Your task to perform on an android device: open app "Duolingo: language lessons" (install if not already installed), go to login, and select forgot password Image 0: 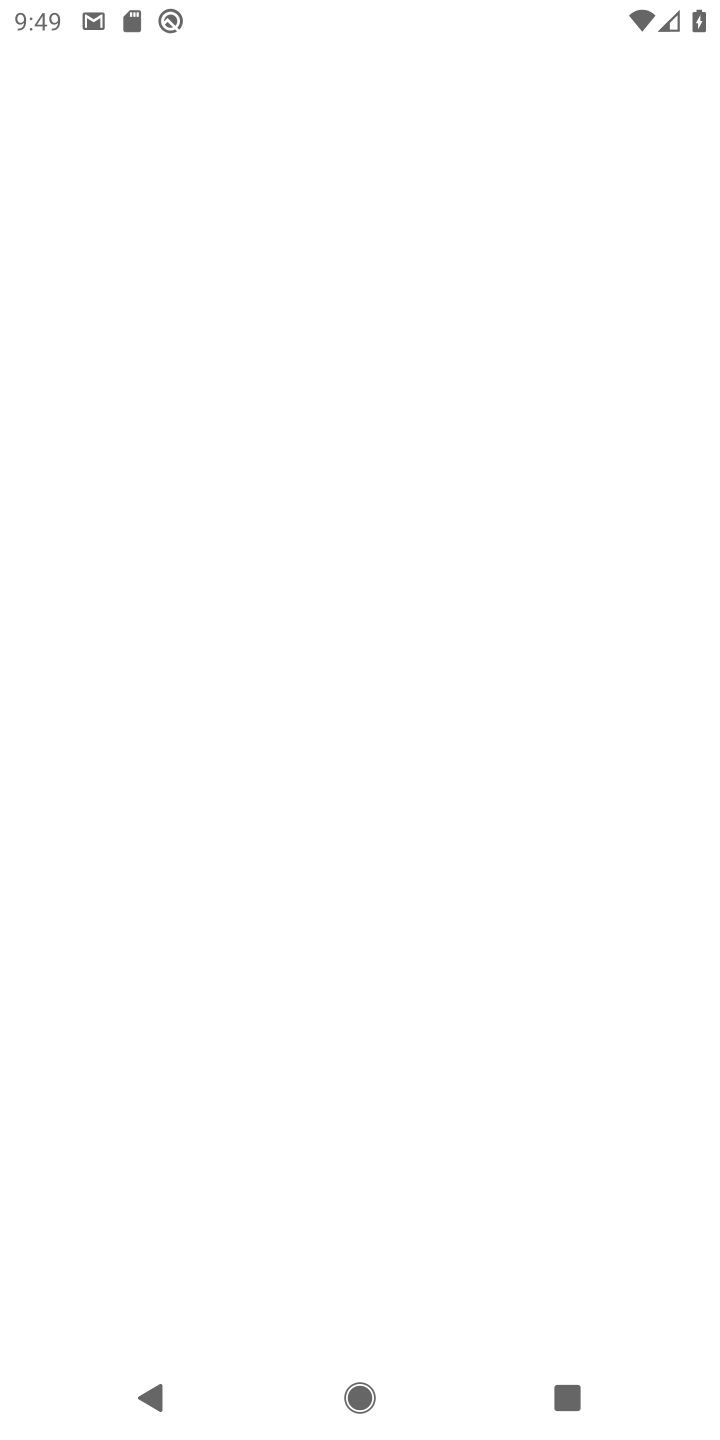
Step 0: press home button
Your task to perform on an android device: open app "Duolingo: language lessons" (install if not already installed), go to login, and select forgot password Image 1: 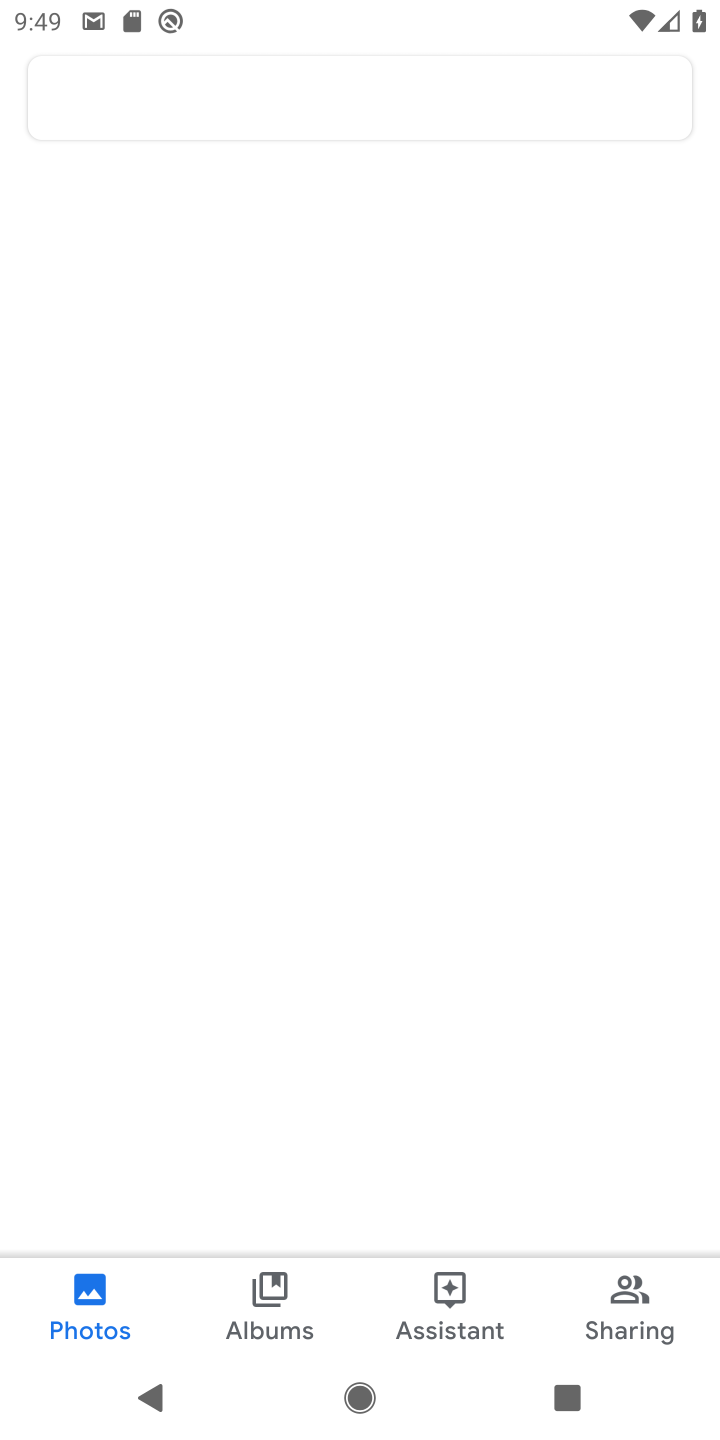
Step 1: press home button
Your task to perform on an android device: open app "Duolingo: language lessons" (install if not already installed), go to login, and select forgot password Image 2: 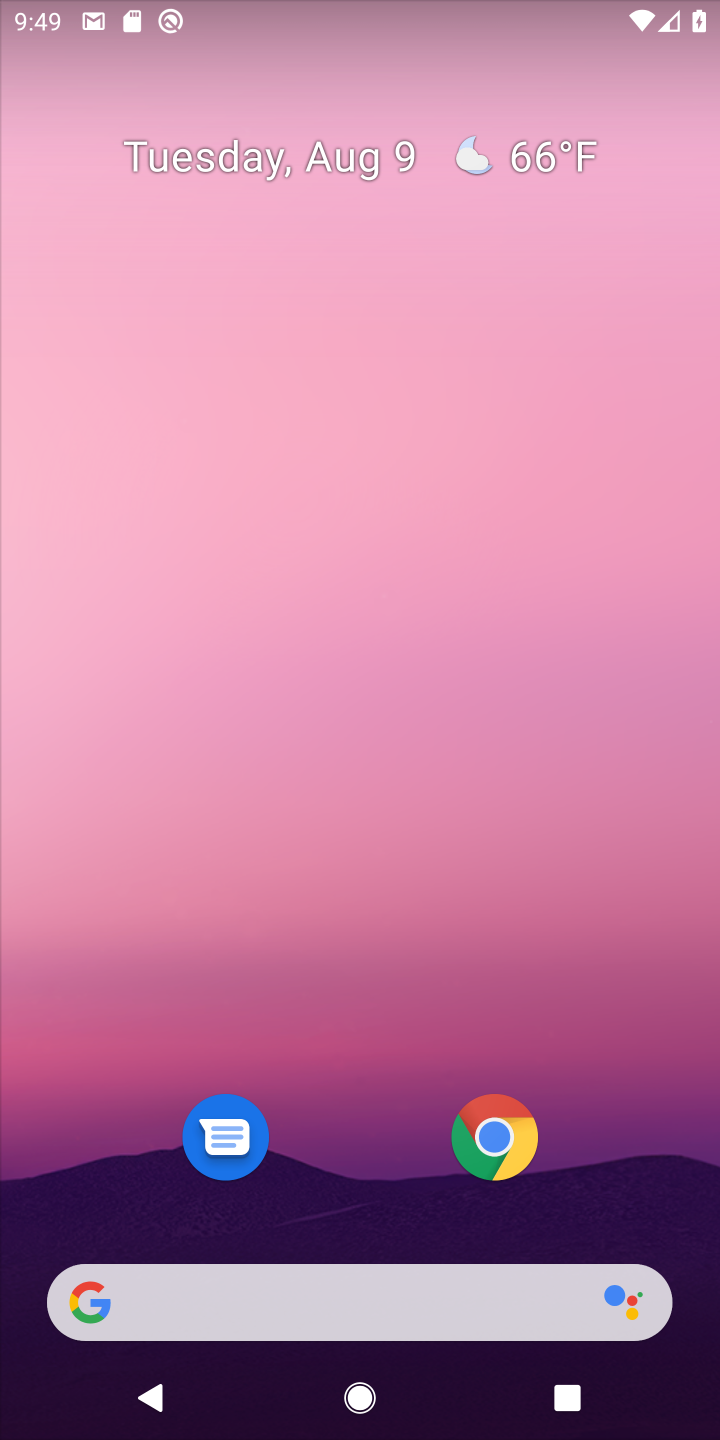
Step 2: drag from (336, 1136) to (335, 393)
Your task to perform on an android device: open app "Duolingo: language lessons" (install if not already installed), go to login, and select forgot password Image 3: 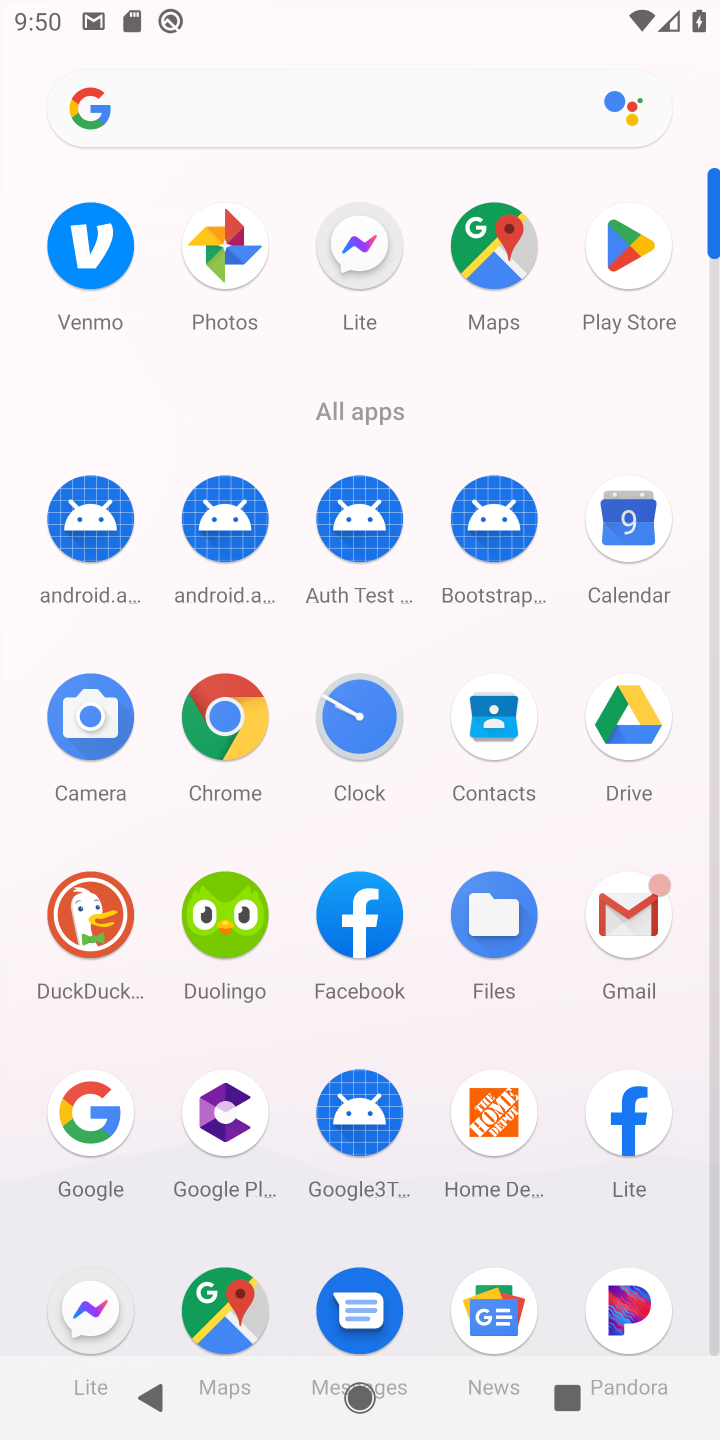
Step 3: click (640, 246)
Your task to perform on an android device: open app "Duolingo: language lessons" (install if not already installed), go to login, and select forgot password Image 4: 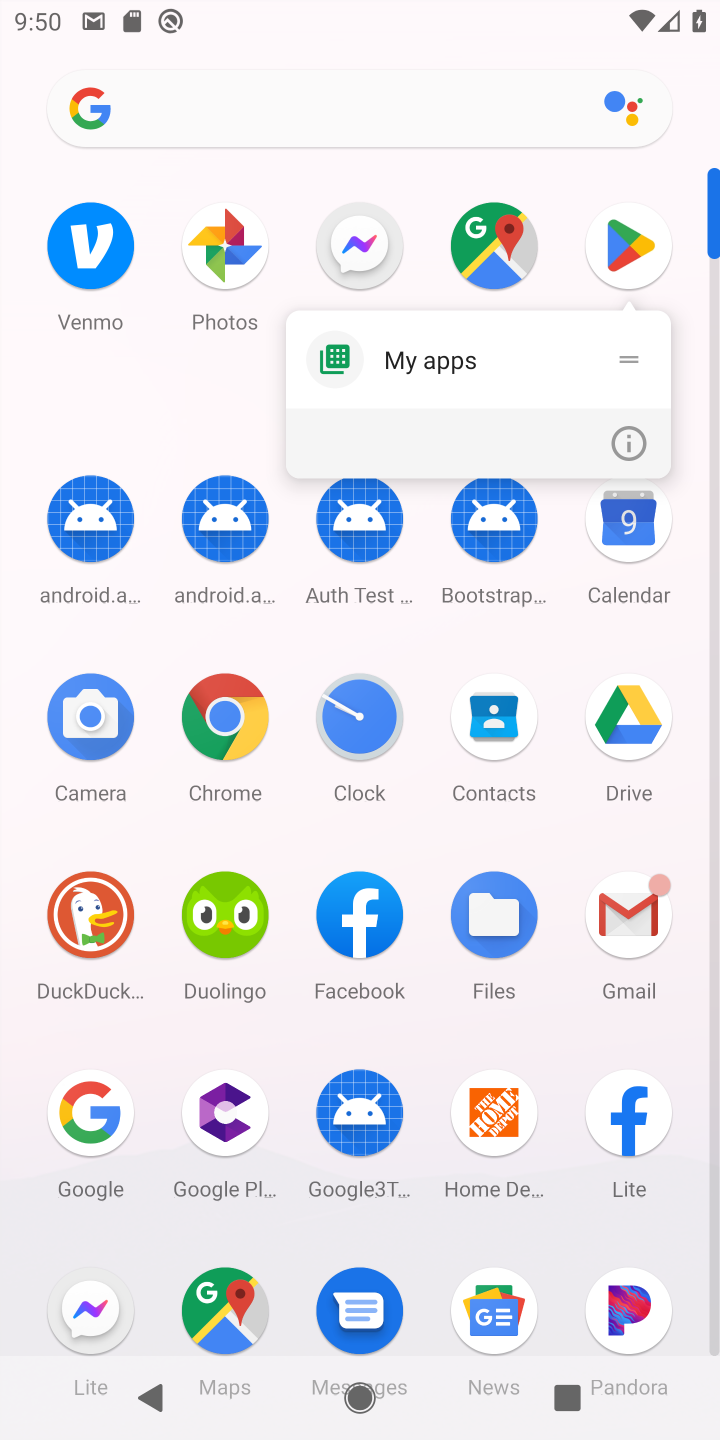
Step 4: click (627, 237)
Your task to perform on an android device: open app "Duolingo: language lessons" (install if not already installed), go to login, and select forgot password Image 5: 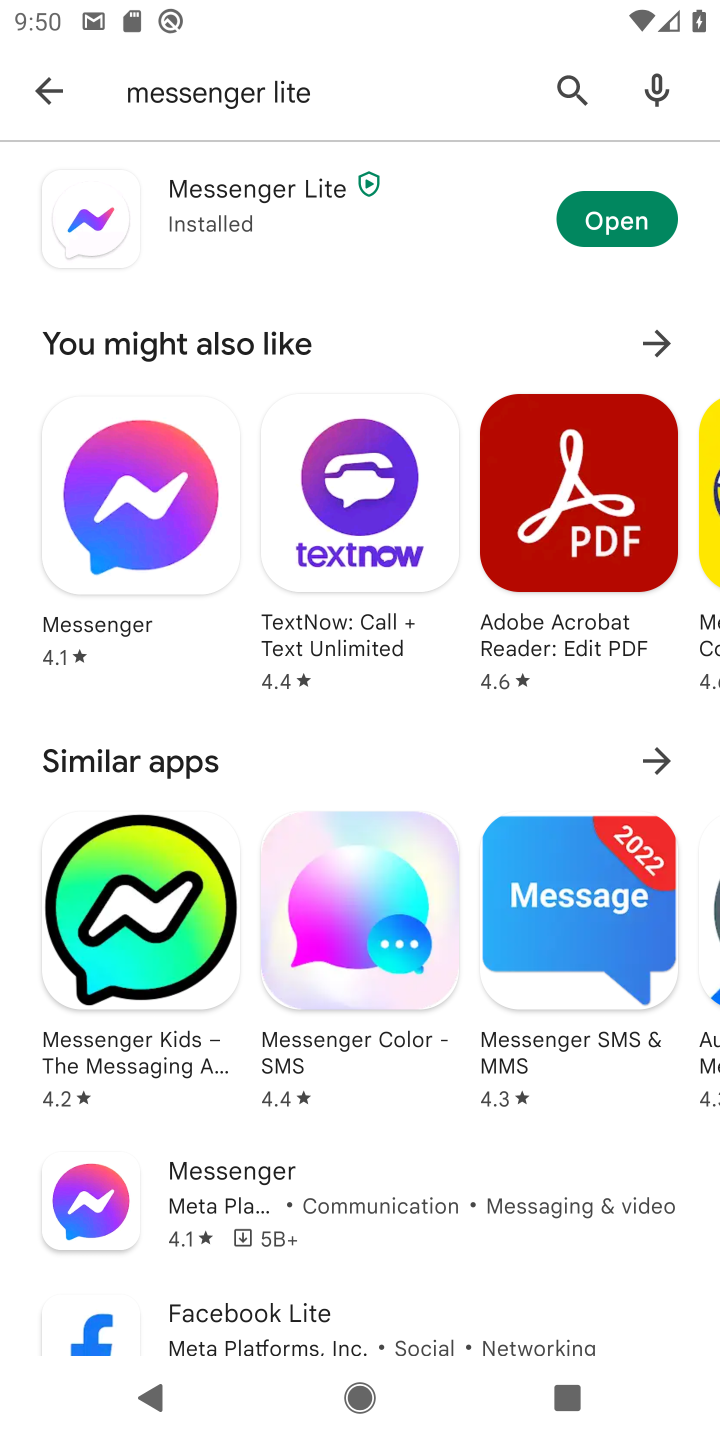
Step 5: click (565, 73)
Your task to perform on an android device: open app "Duolingo: language lessons" (install if not already installed), go to login, and select forgot password Image 6: 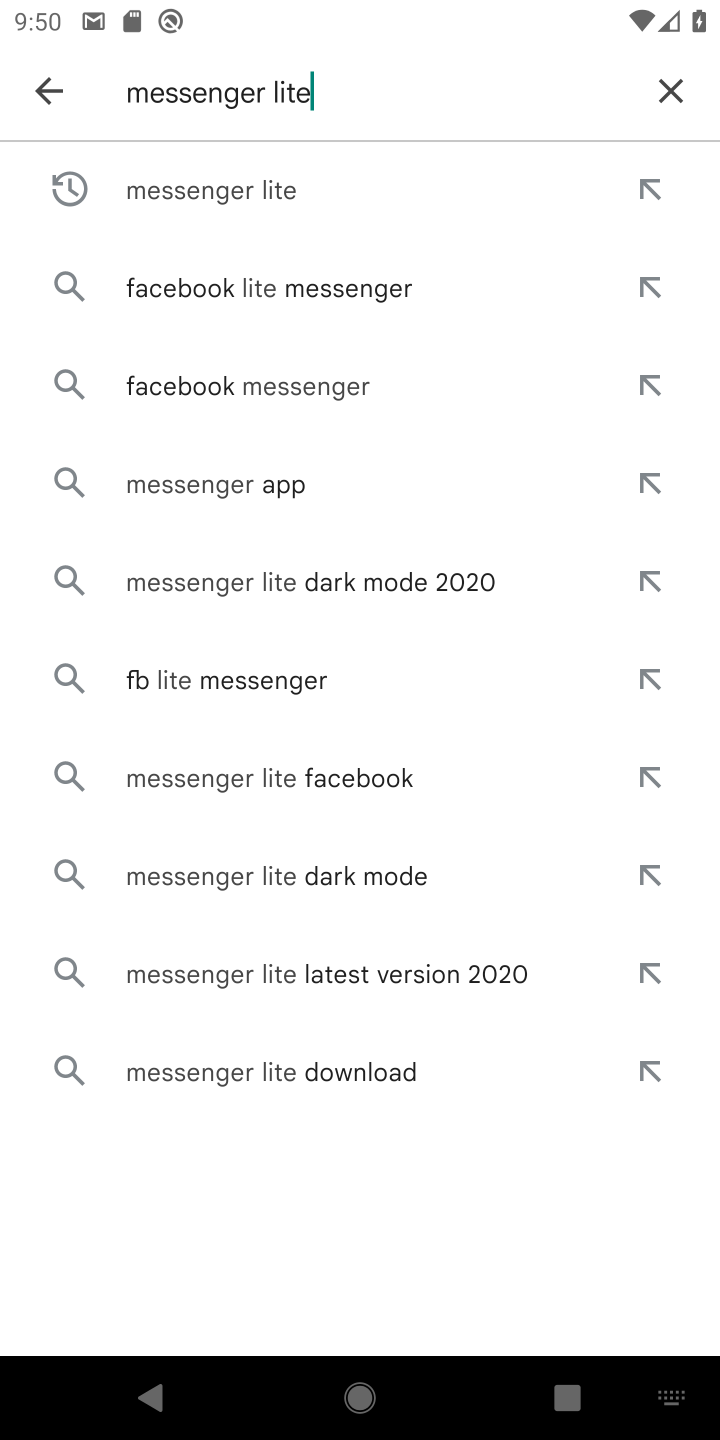
Step 6: click (659, 84)
Your task to perform on an android device: open app "Duolingo: language lessons" (install if not already installed), go to login, and select forgot password Image 7: 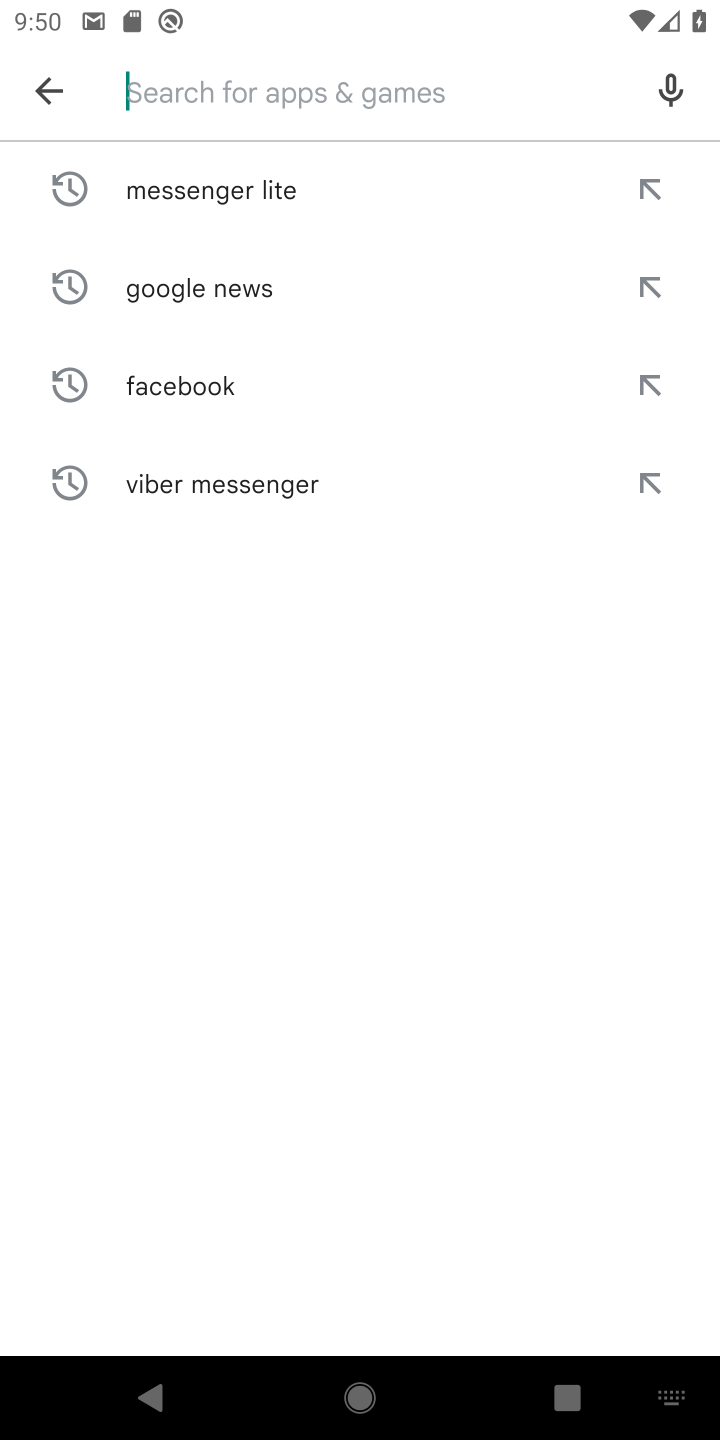
Step 7: type "Duolingo: language lessons"
Your task to perform on an android device: open app "Duolingo: language lessons" (install if not already installed), go to login, and select forgot password Image 8: 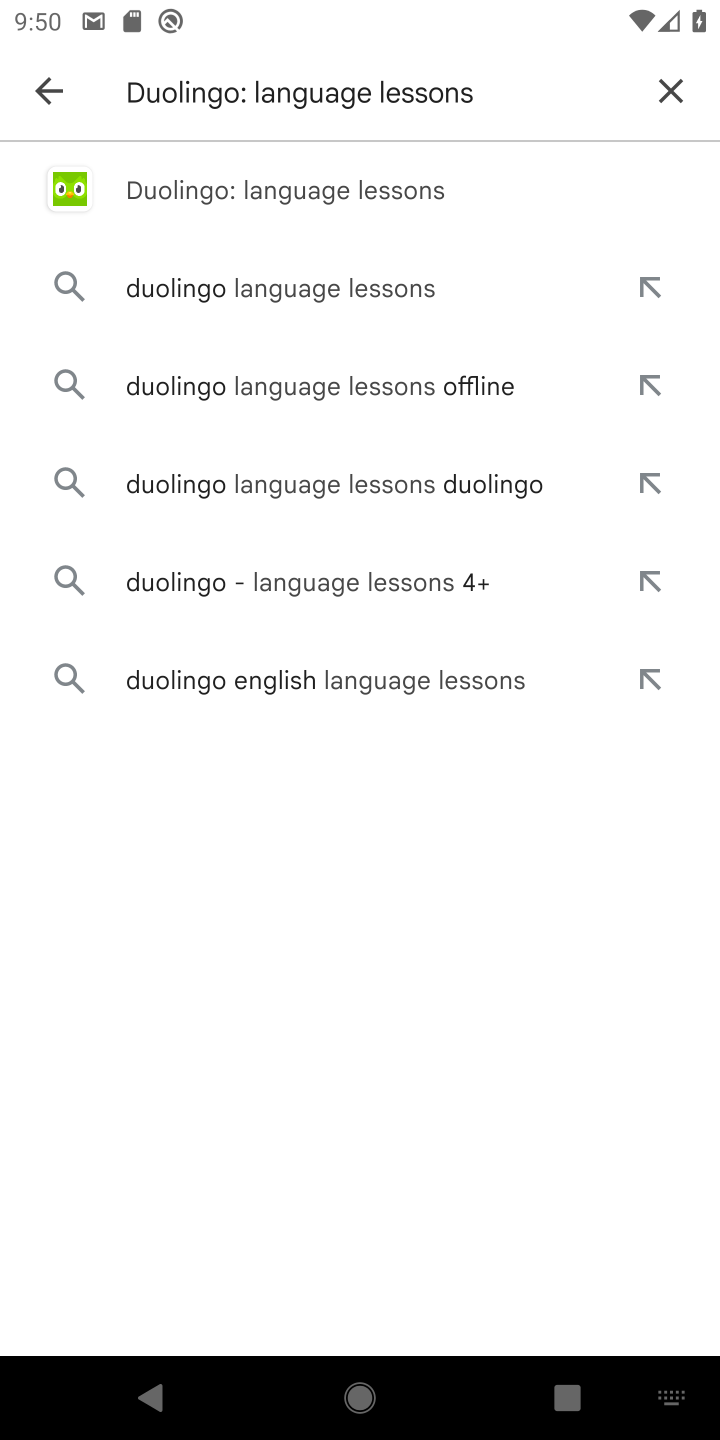
Step 8: click (298, 173)
Your task to perform on an android device: open app "Duolingo: language lessons" (install if not already installed), go to login, and select forgot password Image 9: 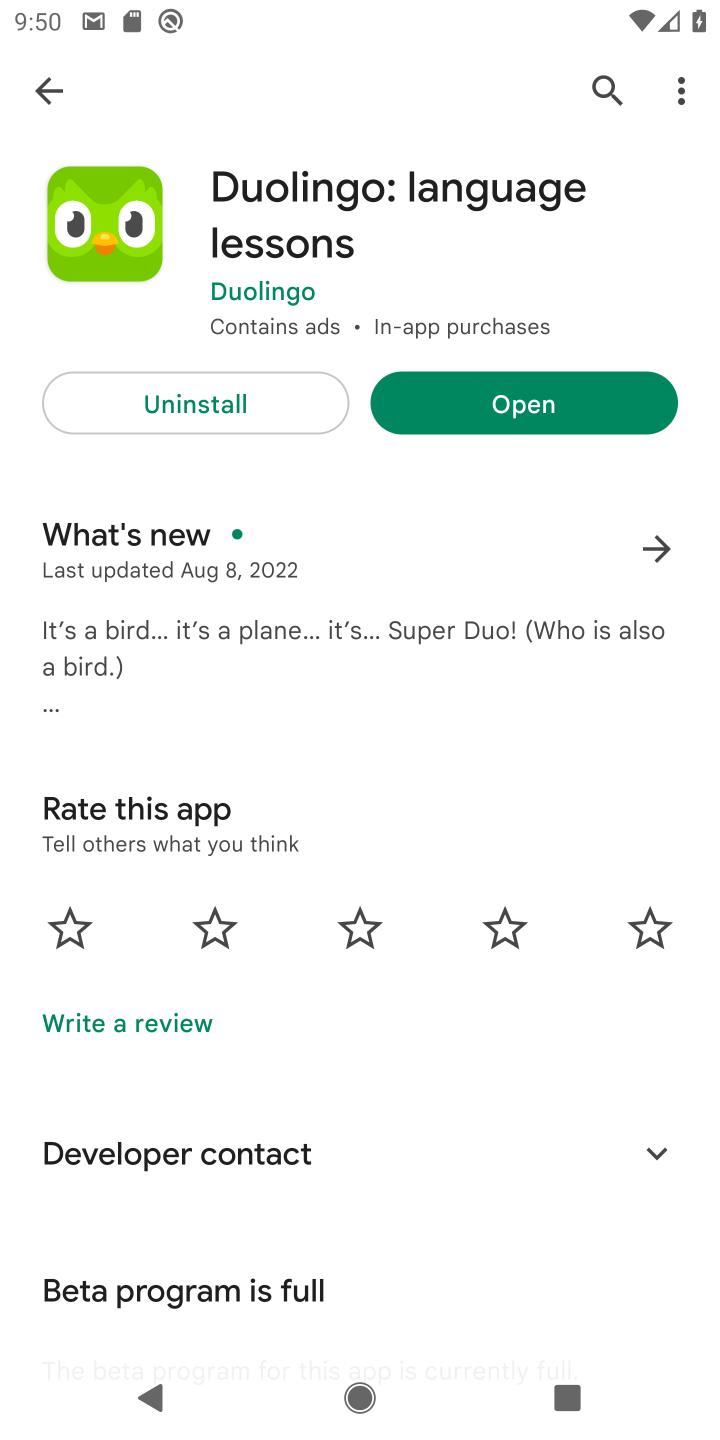
Step 9: click (556, 384)
Your task to perform on an android device: open app "Duolingo: language lessons" (install if not already installed), go to login, and select forgot password Image 10: 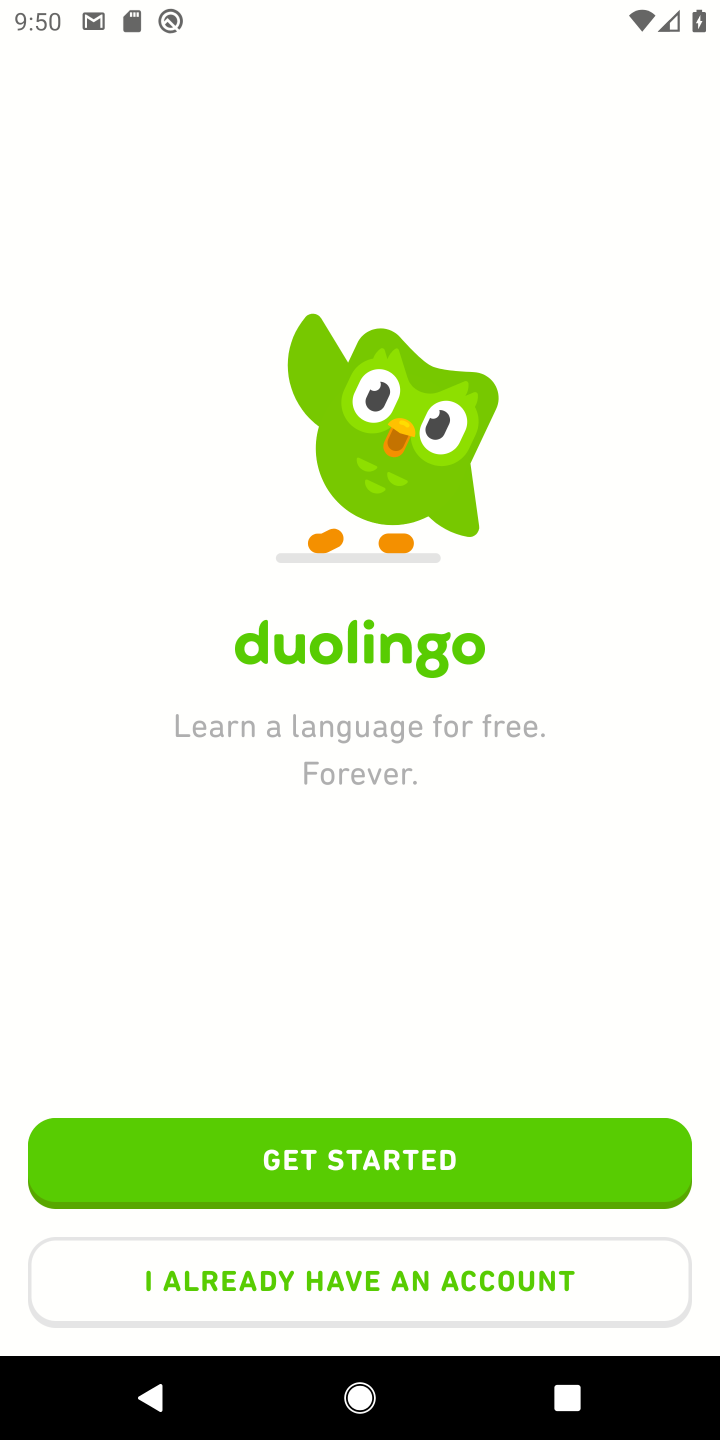
Step 10: task complete